Your task to perform on an android device: clear history in the chrome app Image 0: 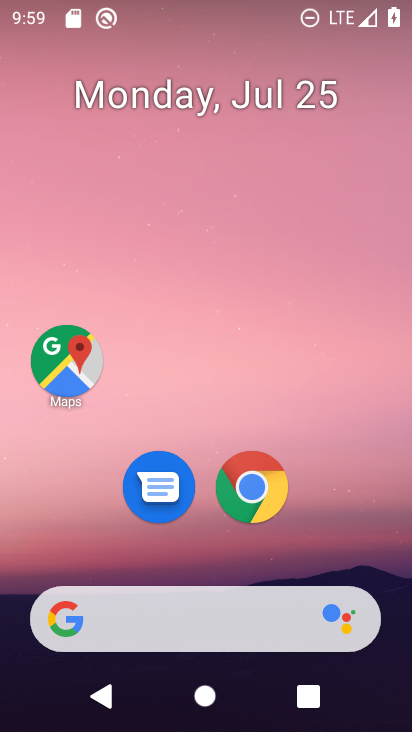
Step 0: click (236, 484)
Your task to perform on an android device: clear history in the chrome app Image 1: 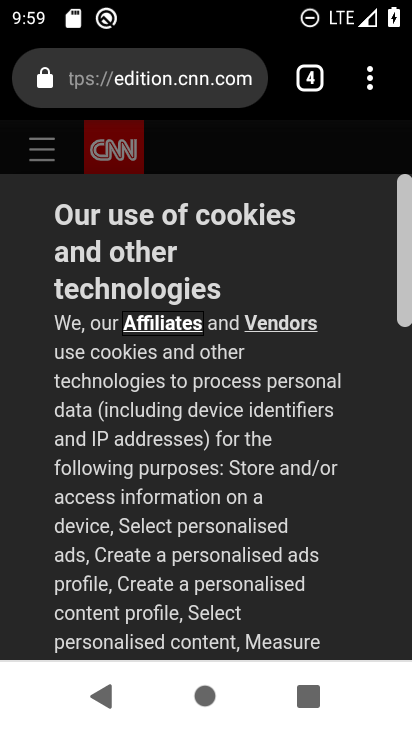
Step 1: drag from (377, 81) to (83, 442)
Your task to perform on an android device: clear history in the chrome app Image 2: 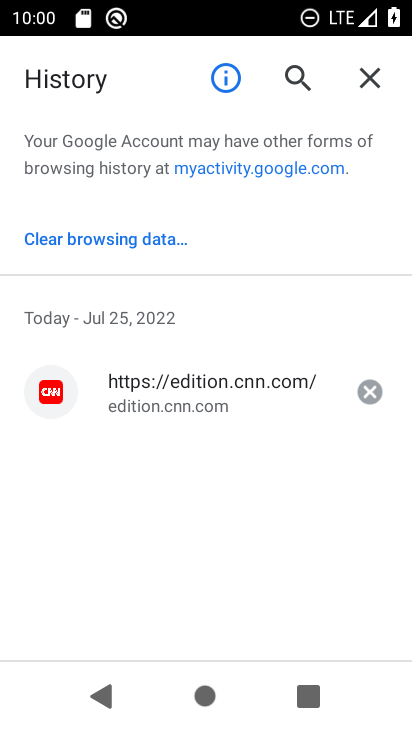
Step 2: click (142, 231)
Your task to perform on an android device: clear history in the chrome app Image 3: 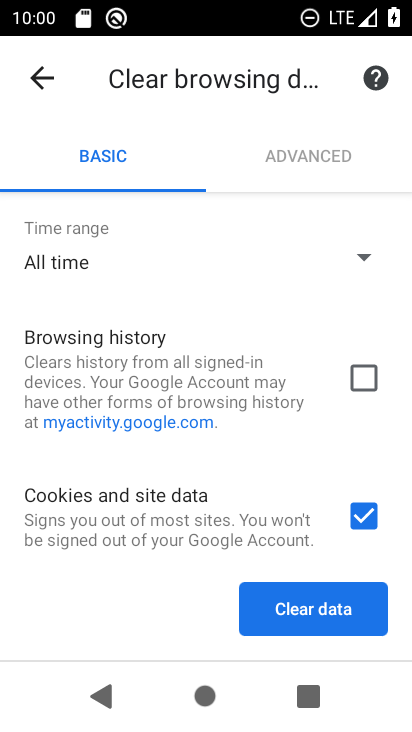
Step 3: click (377, 373)
Your task to perform on an android device: clear history in the chrome app Image 4: 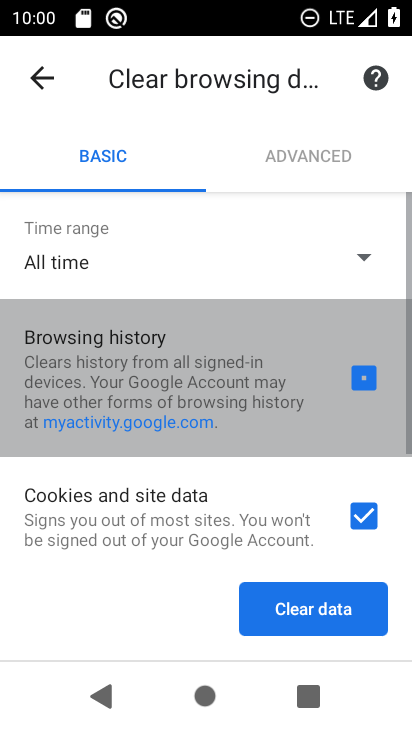
Step 4: drag from (170, 496) to (247, 164)
Your task to perform on an android device: clear history in the chrome app Image 5: 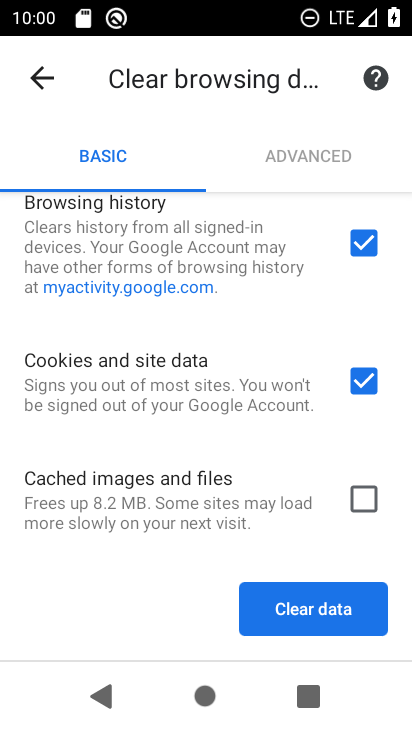
Step 5: click (361, 492)
Your task to perform on an android device: clear history in the chrome app Image 6: 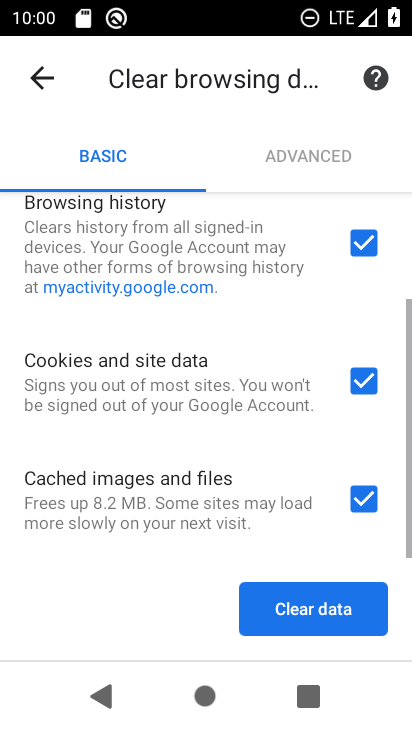
Step 6: click (310, 597)
Your task to perform on an android device: clear history in the chrome app Image 7: 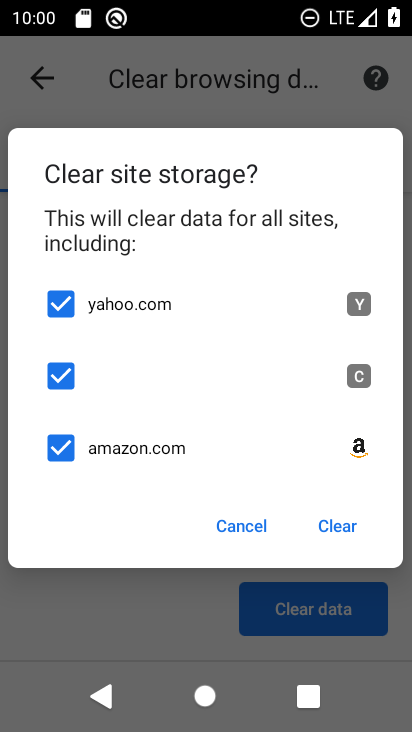
Step 7: click (335, 542)
Your task to perform on an android device: clear history in the chrome app Image 8: 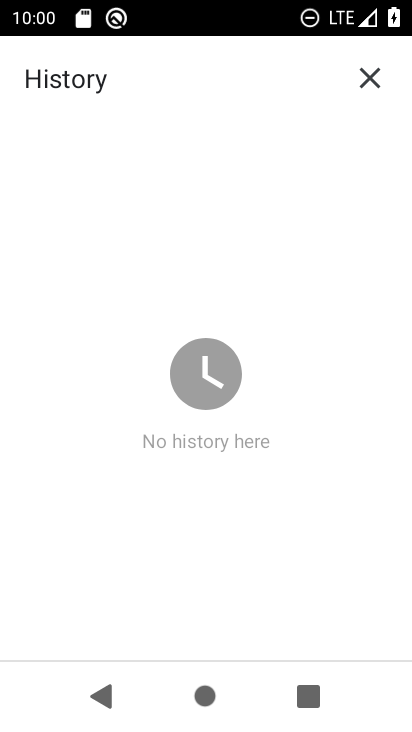
Step 8: task complete